Your task to perform on an android device: uninstall "Spotify" Image 0: 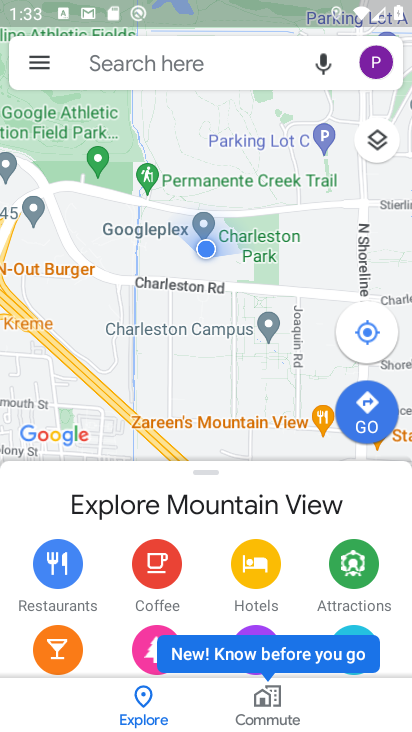
Step 0: press home button
Your task to perform on an android device: uninstall "Spotify" Image 1: 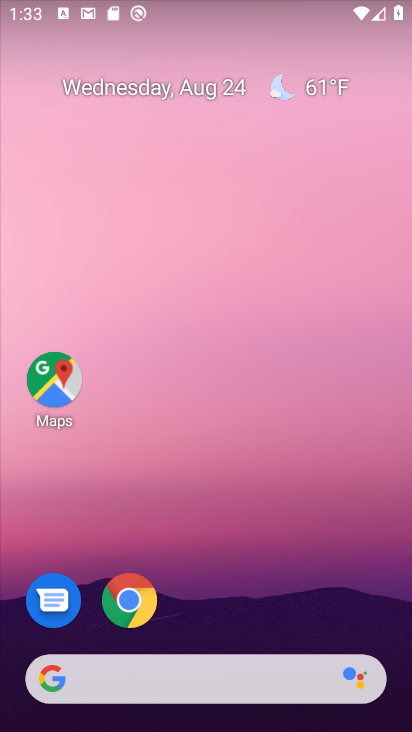
Step 1: drag from (240, 624) to (226, 5)
Your task to perform on an android device: uninstall "Spotify" Image 2: 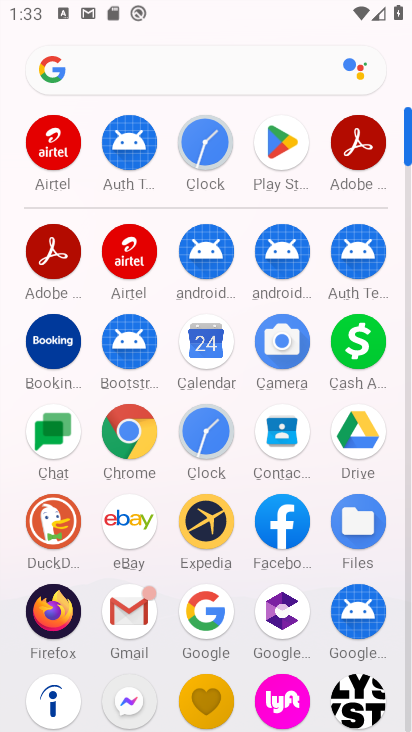
Step 2: click (289, 165)
Your task to perform on an android device: uninstall "Spotify" Image 3: 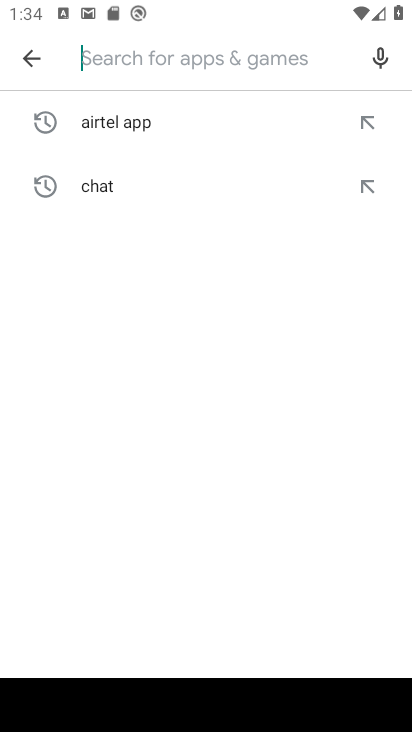
Step 3: type "spotify"
Your task to perform on an android device: uninstall "Spotify" Image 4: 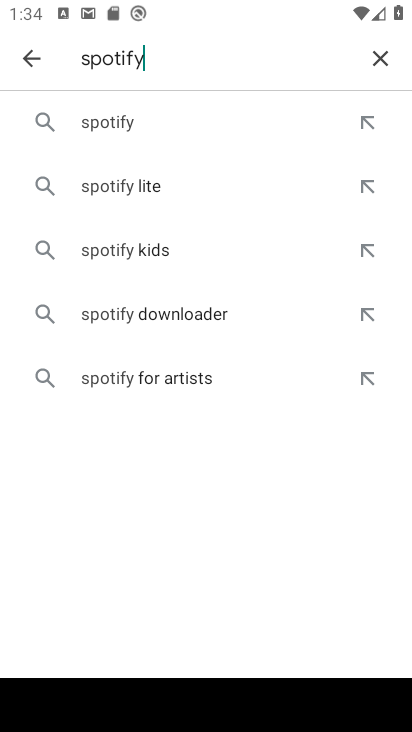
Step 4: click (220, 144)
Your task to perform on an android device: uninstall "Spotify" Image 5: 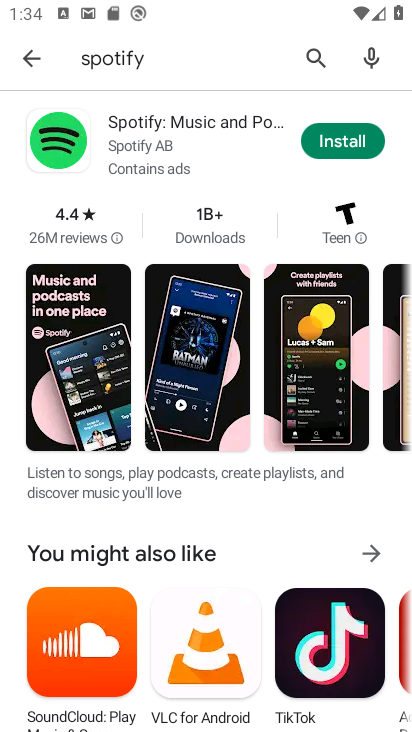
Step 5: click (338, 146)
Your task to perform on an android device: uninstall "Spotify" Image 6: 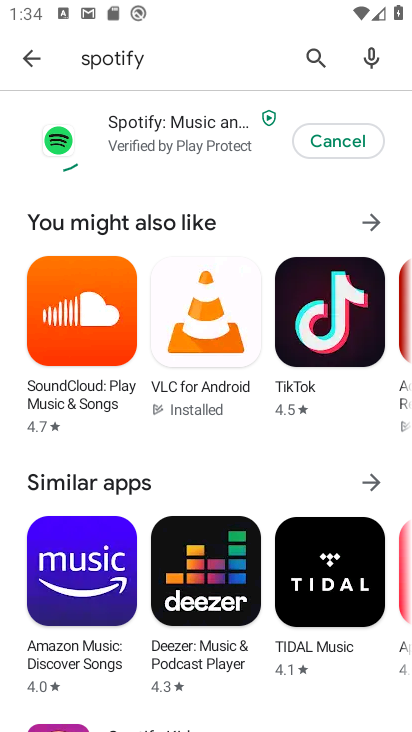
Step 6: task complete